Your task to perform on an android device: read, delete, or share a saved page in the chrome app Image 0: 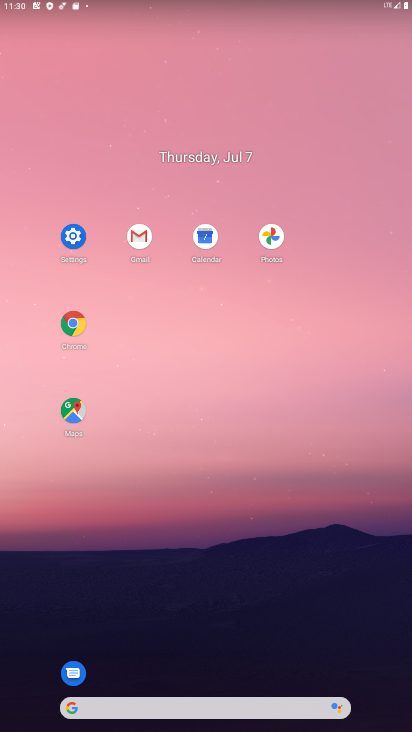
Step 0: click (79, 329)
Your task to perform on an android device: read, delete, or share a saved page in the chrome app Image 1: 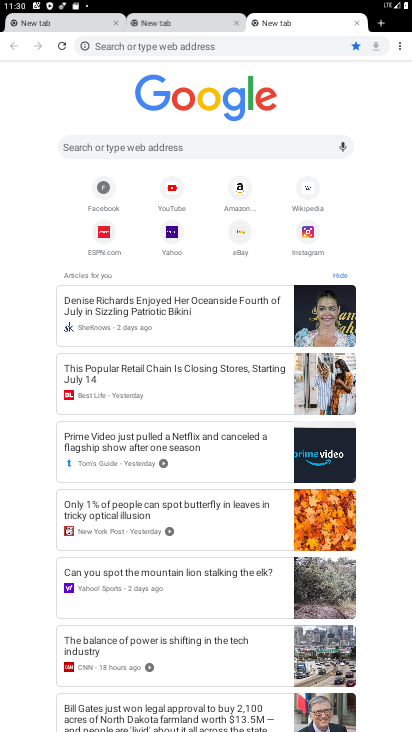
Step 1: click (401, 47)
Your task to perform on an android device: read, delete, or share a saved page in the chrome app Image 2: 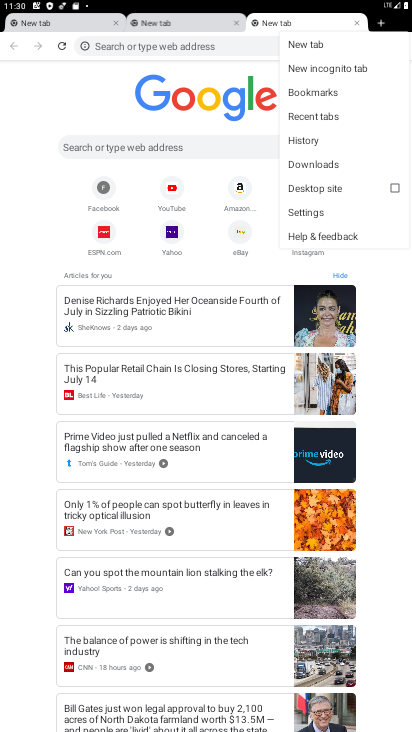
Step 2: click (341, 164)
Your task to perform on an android device: read, delete, or share a saved page in the chrome app Image 3: 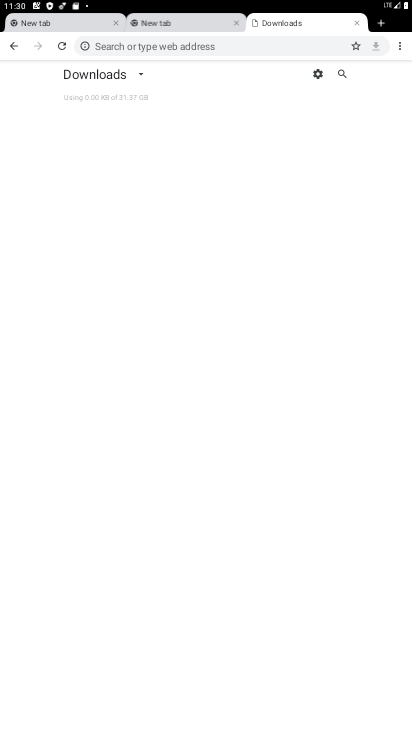
Step 3: task complete